Your task to perform on an android device: Empty the shopping cart on ebay.com. Search for "lg ultragear" on ebay.com, select the first entry, add it to the cart, then select checkout. Image 0: 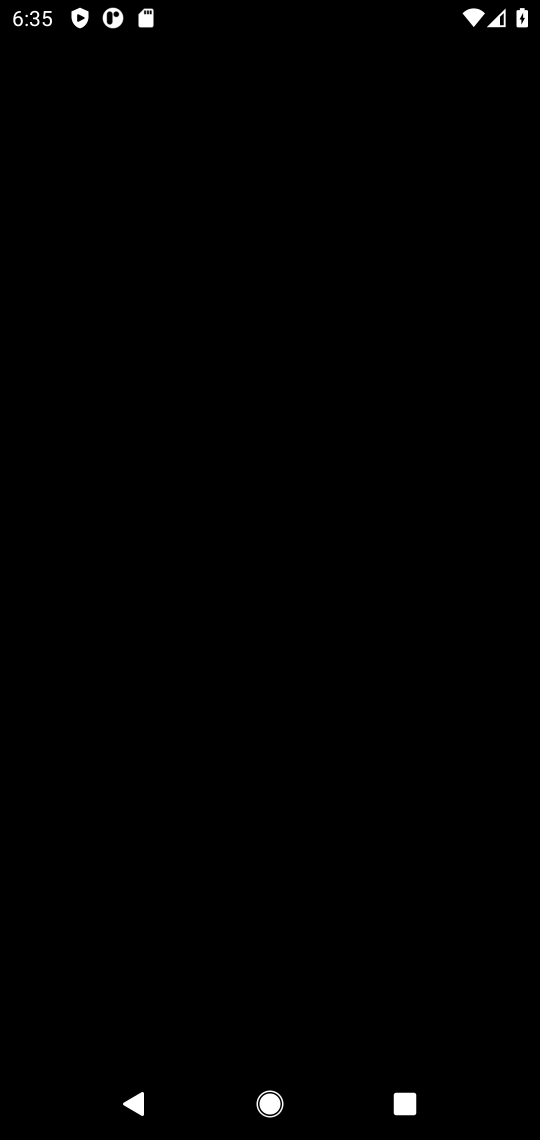
Step 0: press home button
Your task to perform on an android device: Empty the shopping cart on ebay.com. Search for "lg ultragear" on ebay.com, select the first entry, add it to the cart, then select checkout. Image 1: 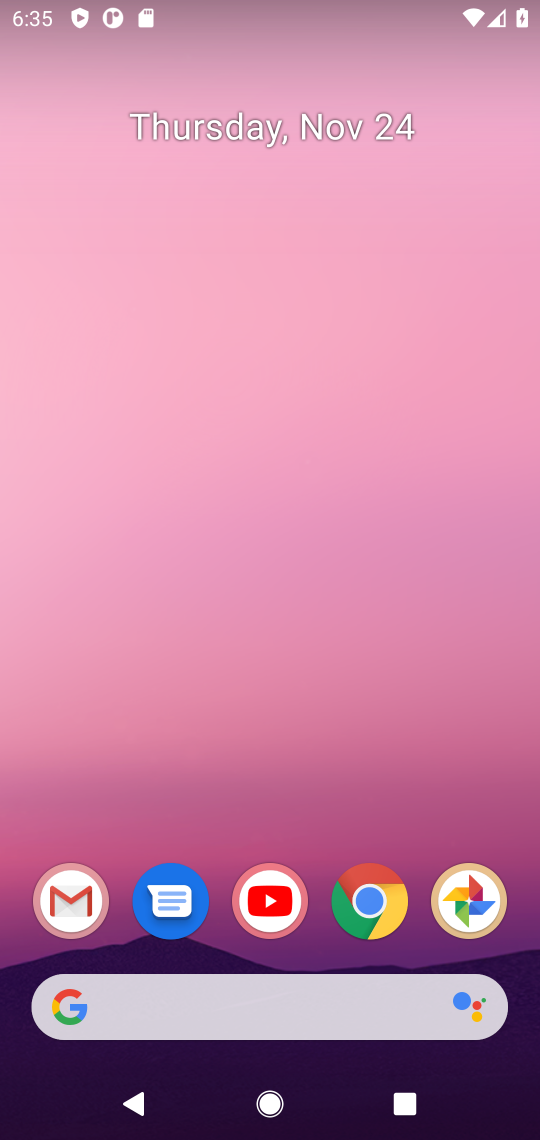
Step 1: click (364, 895)
Your task to perform on an android device: Empty the shopping cart on ebay.com. Search for "lg ultragear" on ebay.com, select the first entry, add it to the cart, then select checkout. Image 2: 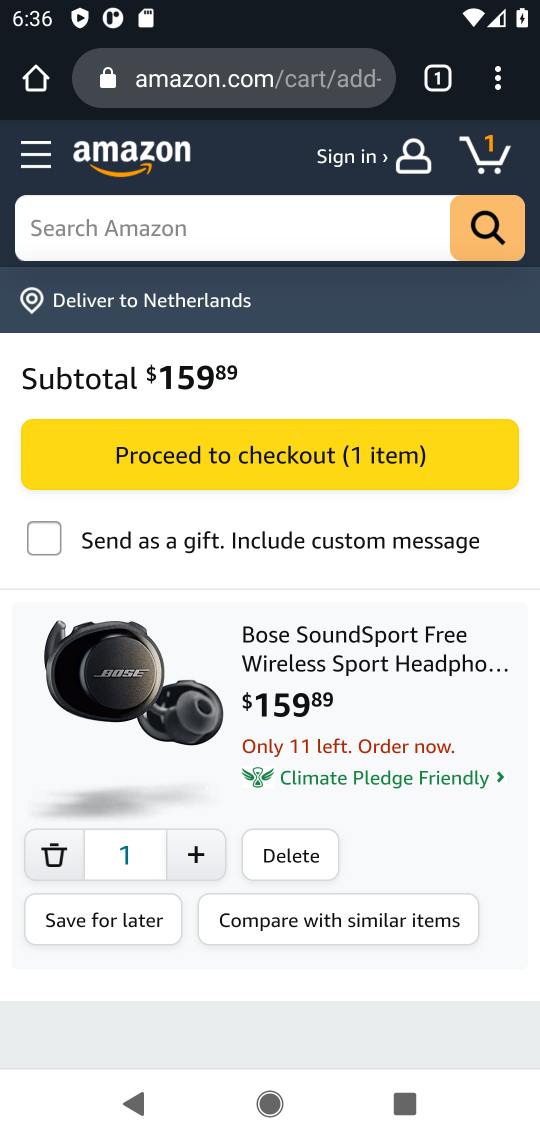
Step 2: click (282, 76)
Your task to perform on an android device: Empty the shopping cart on ebay.com. Search for "lg ultragear" on ebay.com, select the first entry, add it to the cart, then select checkout. Image 3: 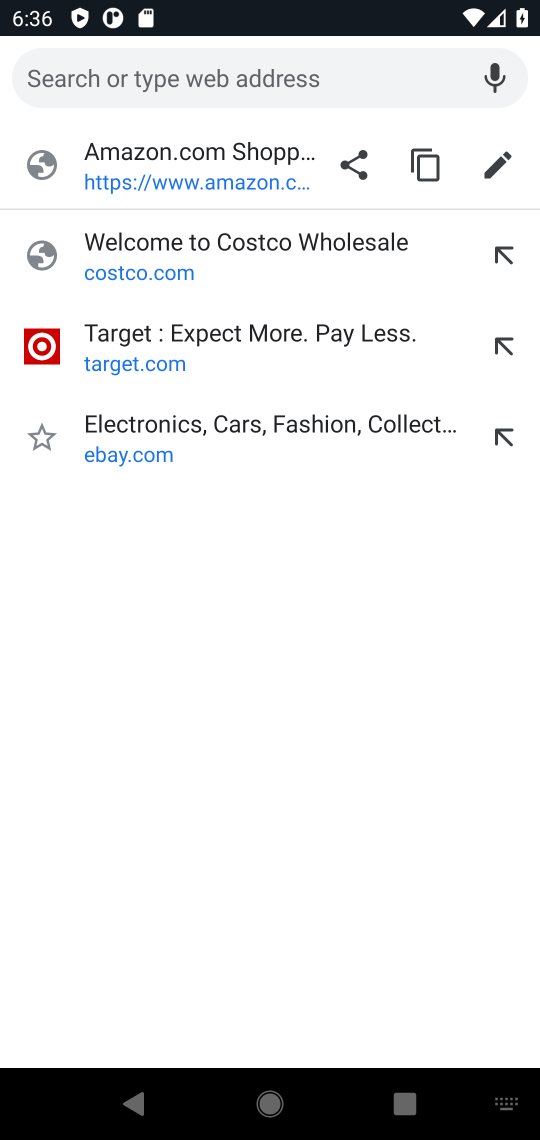
Step 3: type "ebay.com"
Your task to perform on an android device: Empty the shopping cart on ebay.com. Search for "lg ultragear" on ebay.com, select the first entry, add it to the cart, then select checkout. Image 4: 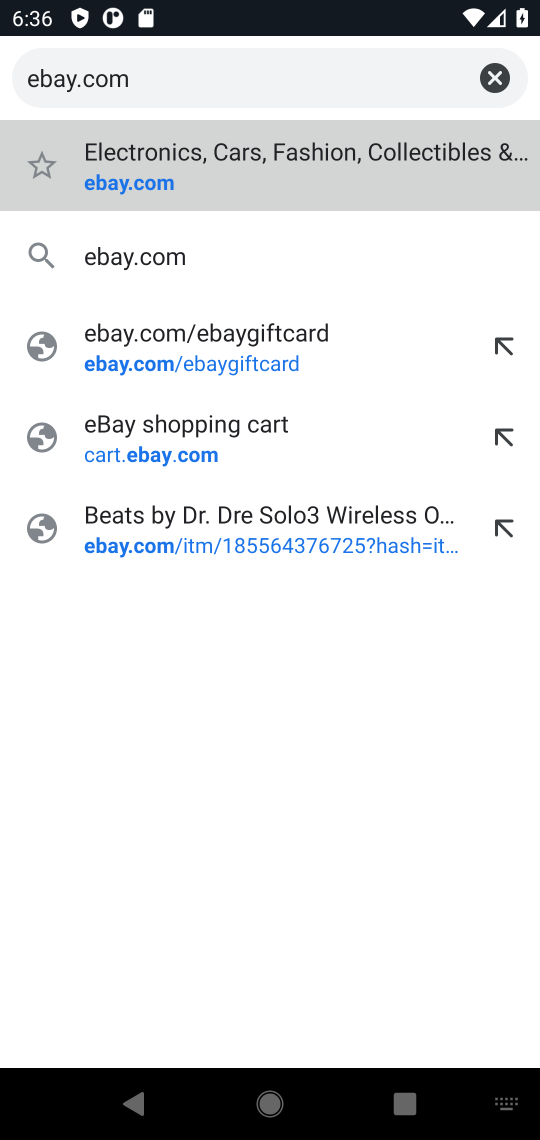
Step 4: click (329, 178)
Your task to perform on an android device: Empty the shopping cart on ebay.com. Search for "lg ultragear" on ebay.com, select the first entry, add it to the cart, then select checkout. Image 5: 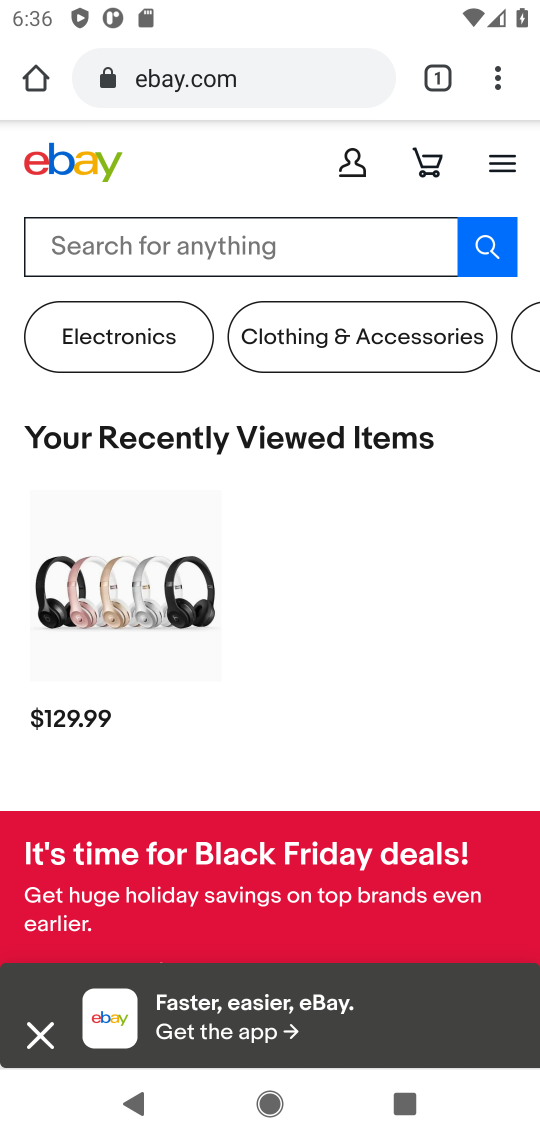
Step 5: drag from (296, 747) to (259, 507)
Your task to perform on an android device: Empty the shopping cart on ebay.com. Search for "lg ultragear" on ebay.com, select the first entry, add it to the cart, then select checkout. Image 6: 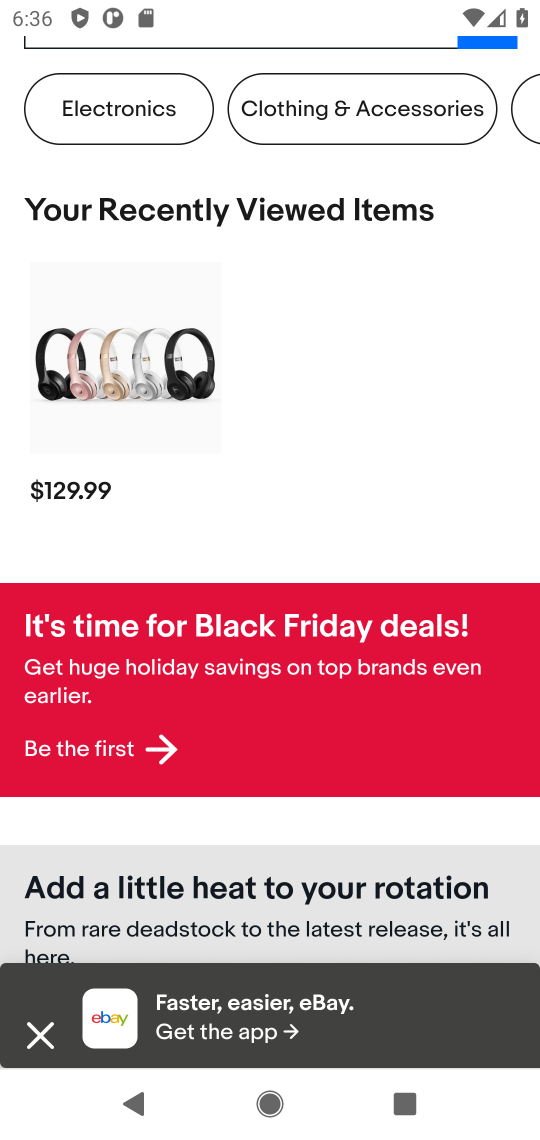
Step 6: drag from (270, 450) to (324, 964)
Your task to perform on an android device: Empty the shopping cart on ebay.com. Search for "lg ultragear" on ebay.com, select the first entry, add it to the cart, then select checkout. Image 7: 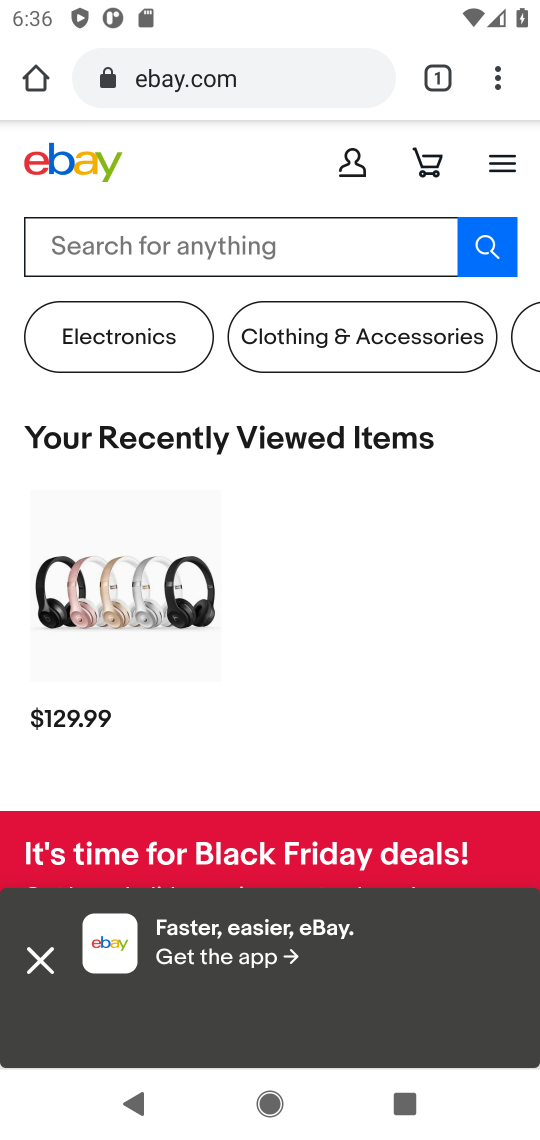
Step 7: click (432, 176)
Your task to perform on an android device: Empty the shopping cart on ebay.com. Search for "lg ultragear" on ebay.com, select the first entry, add it to the cart, then select checkout. Image 8: 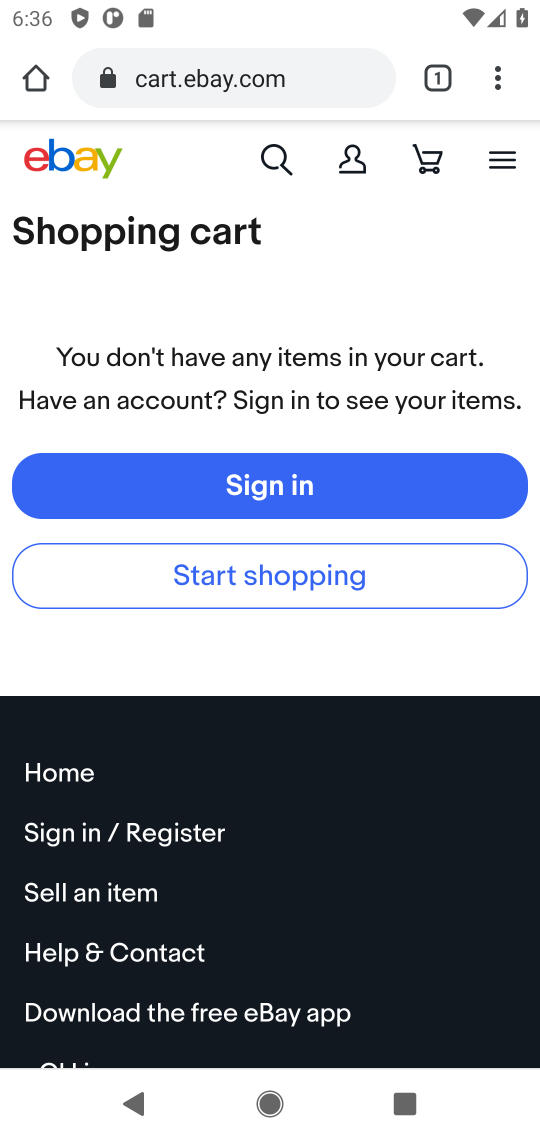
Step 8: click (270, 165)
Your task to perform on an android device: Empty the shopping cart on ebay.com. Search for "lg ultragear" on ebay.com, select the first entry, add it to the cart, then select checkout. Image 9: 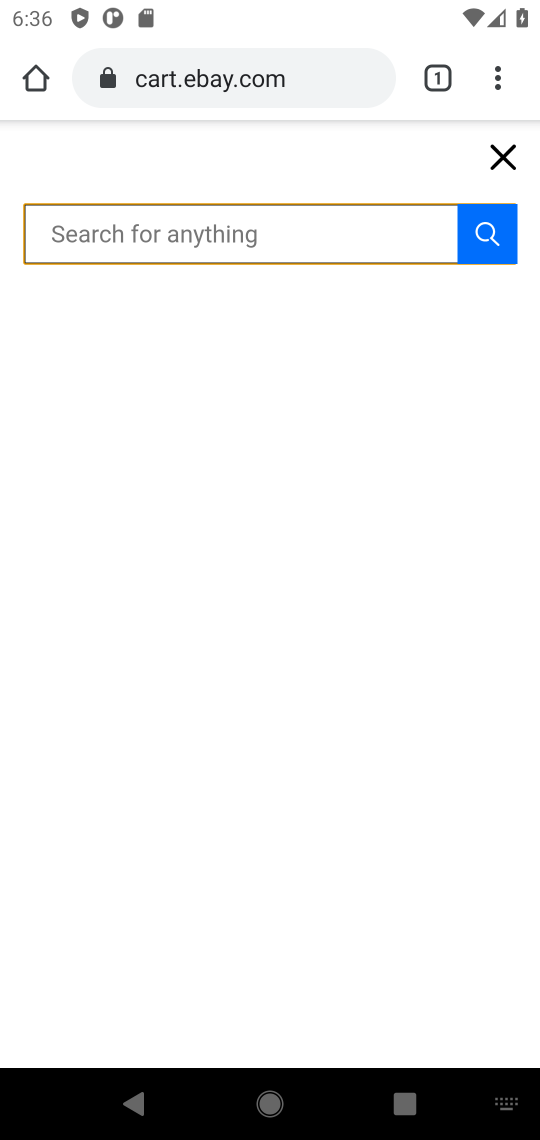
Step 9: type "lg ultrgear"
Your task to perform on an android device: Empty the shopping cart on ebay.com. Search for "lg ultragear" on ebay.com, select the first entry, add it to the cart, then select checkout. Image 10: 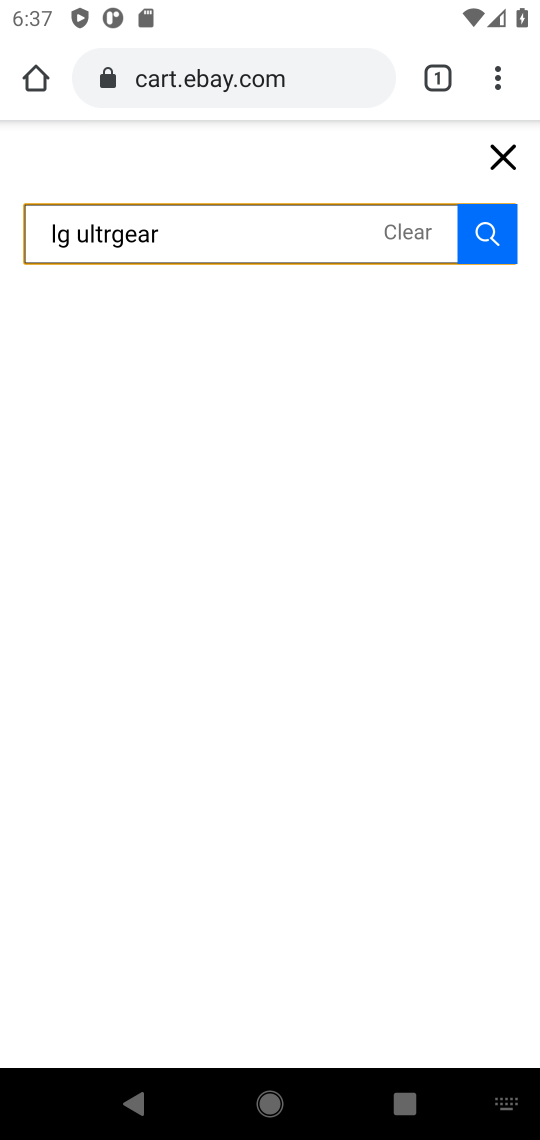
Step 10: press enter
Your task to perform on an android device: Empty the shopping cart on ebay.com. Search for "lg ultragear" on ebay.com, select the first entry, add it to the cart, then select checkout. Image 11: 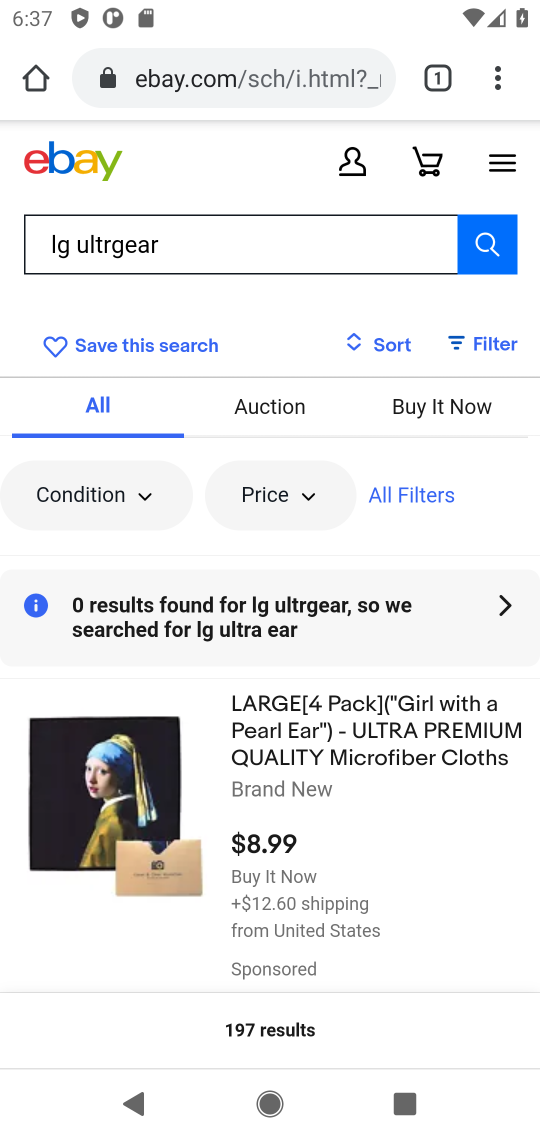
Step 11: drag from (331, 882) to (320, 576)
Your task to perform on an android device: Empty the shopping cart on ebay.com. Search for "lg ultragear" on ebay.com, select the first entry, add it to the cart, then select checkout. Image 12: 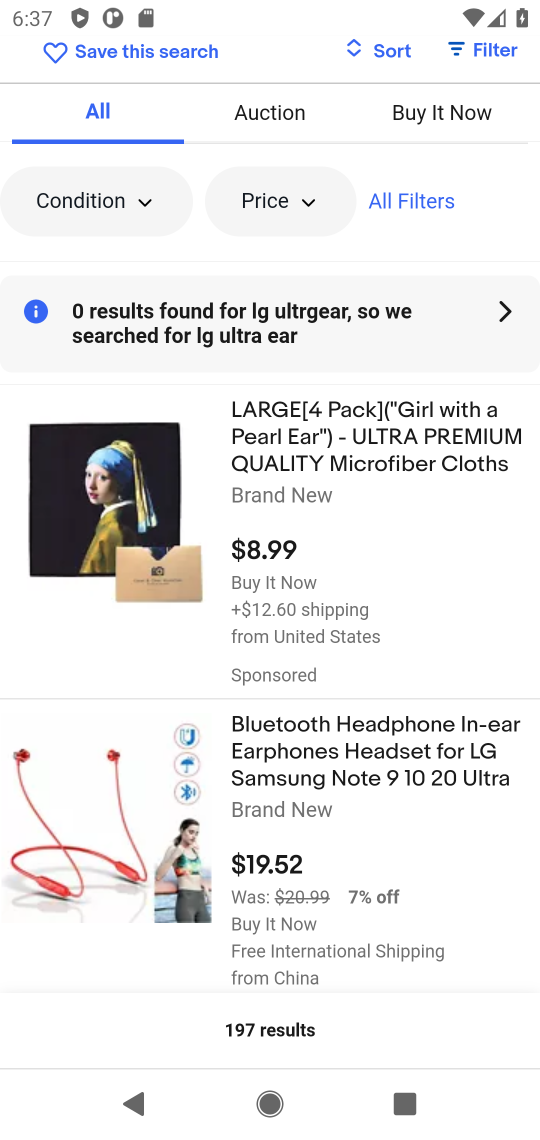
Step 12: click (347, 435)
Your task to perform on an android device: Empty the shopping cart on ebay.com. Search for "lg ultragear" on ebay.com, select the first entry, add it to the cart, then select checkout. Image 13: 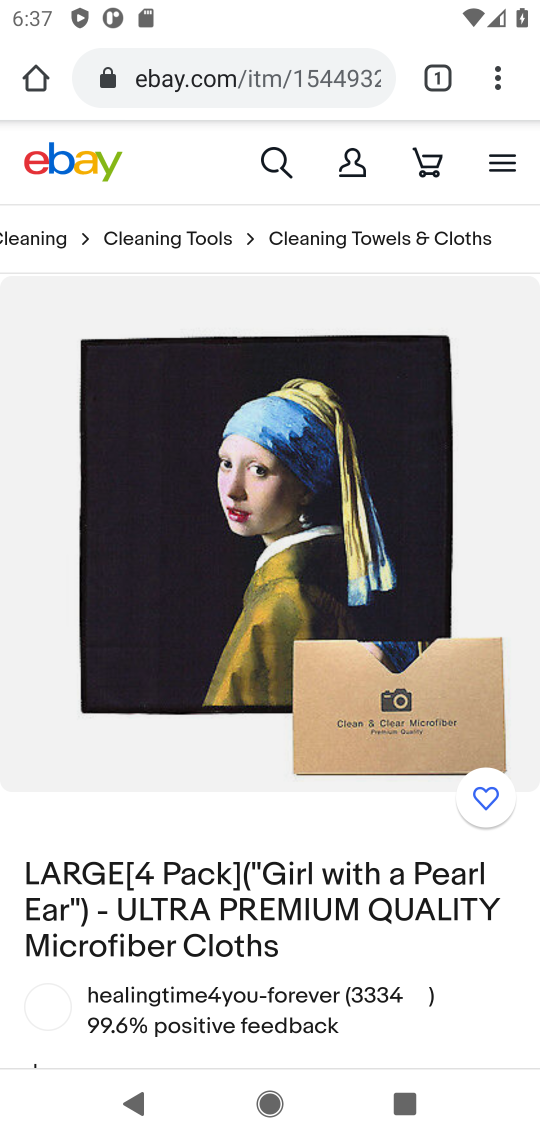
Step 13: drag from (318, 925) to (290, 442)
Your task to perform on an android device: Empty the shopping cart on ebay.com. Search for "lg ultragear" on ebay.com, select the first entry, add it to the cart, then select checkout. Image 14: 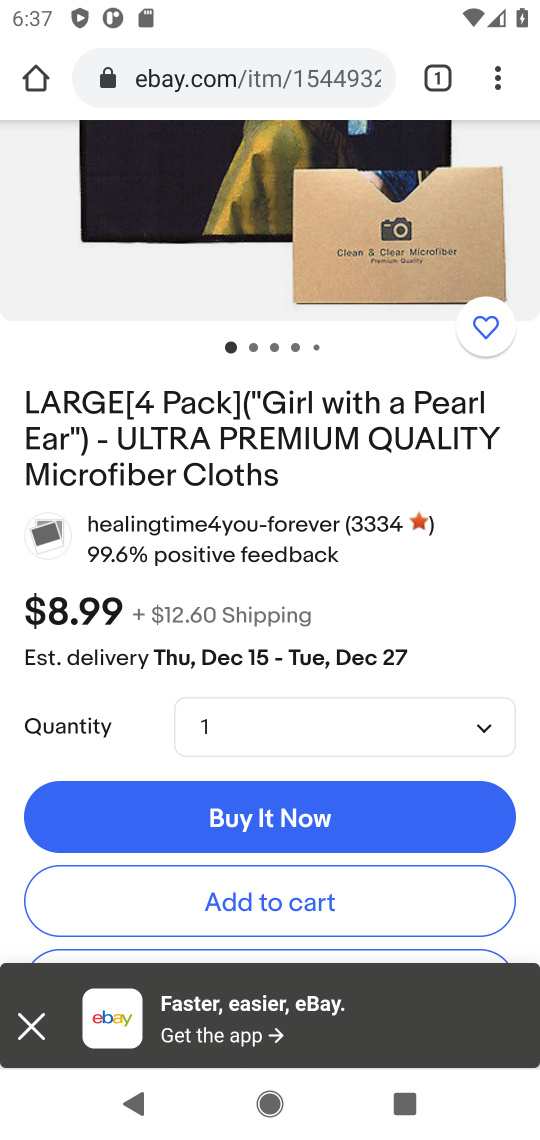
Step 14: click (304, 922)
Your task to perform on an android device: Empty the shopping cart on ebay.com. Search for "lg ultragear" on ebay.com, select the first entry, add it to the cart, then select checkout. Image 15: 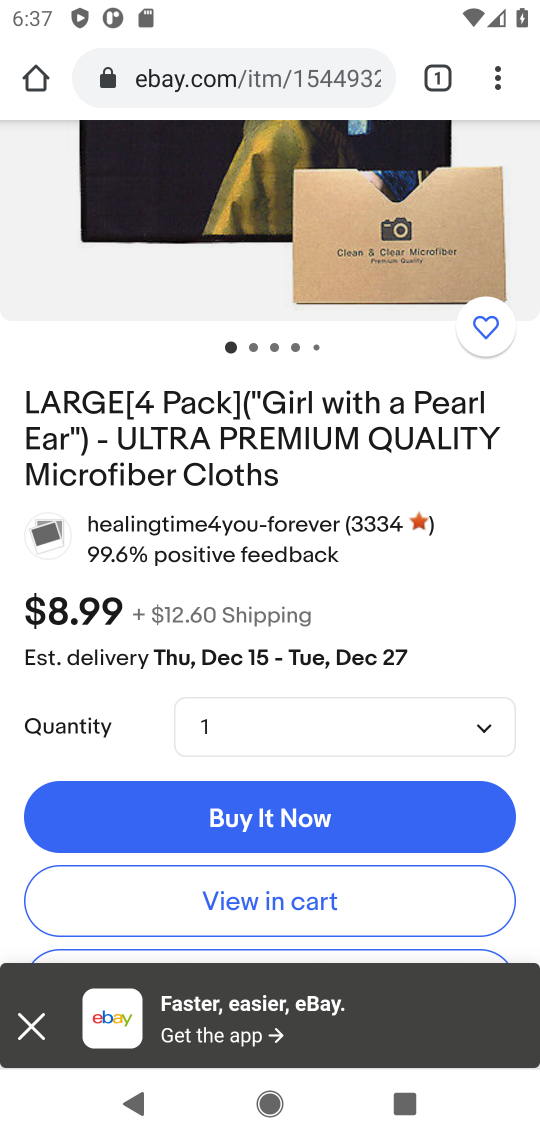
Step 15: drag from (478, 538) to (449, 1093)
Your task to perform on an android device: Empty the shopping cart on ebay.com. Search for "lg ultragear" on ebay.com, select the first entry, add it to the cart, then select checkout. Image 16: 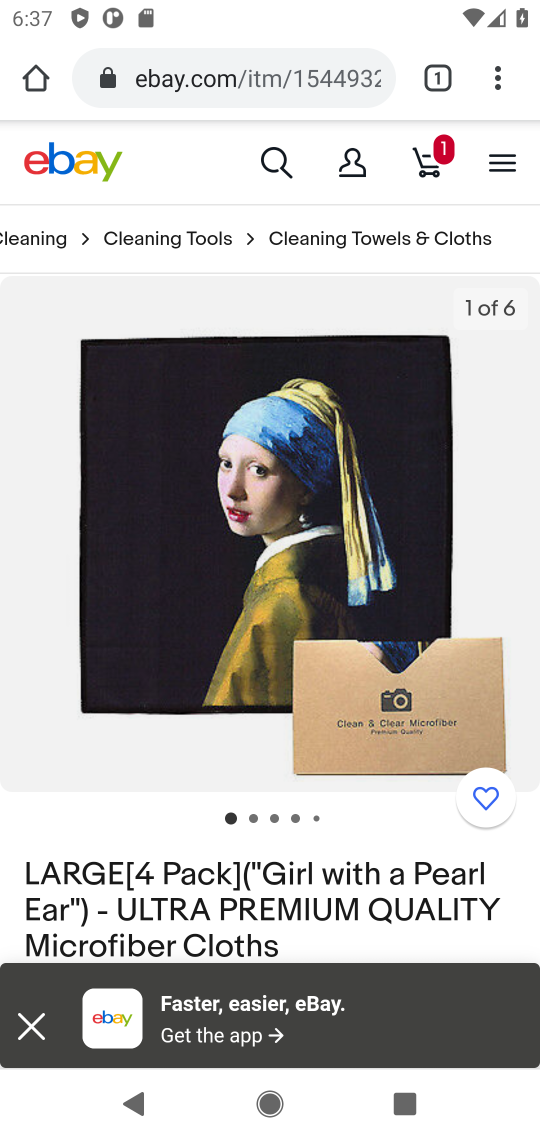
Step 16: click (430, 154)
Your task to perform on an android device: Empty the shopping cart on ebay.com. Search for "lg ultragear" on ebay.com, select the first entry, add it to the cart, then select checkout. Image 17: 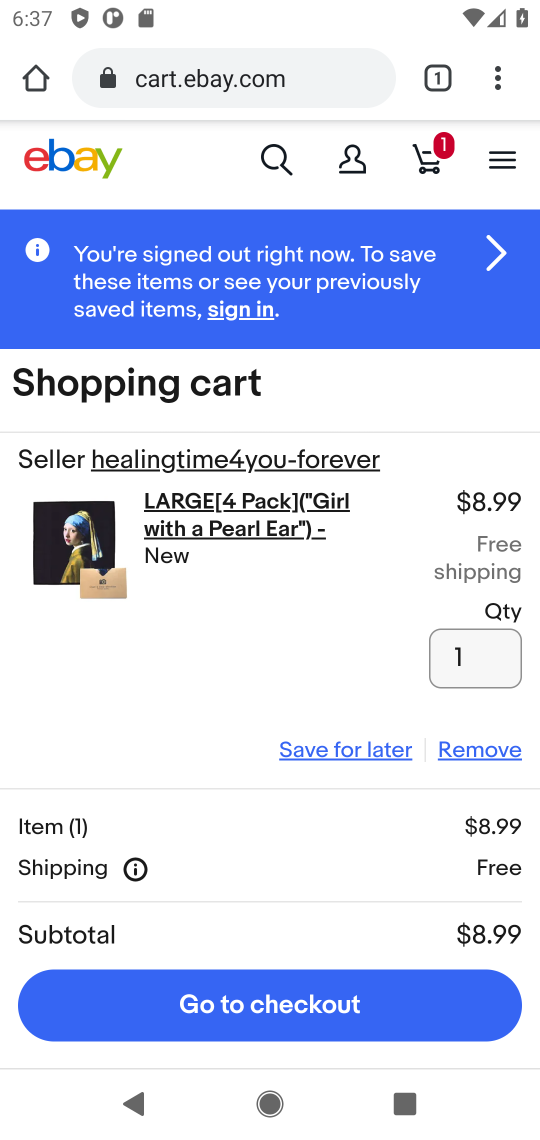
Step 17: click (345, 1005)
Your task to perform on an android device: Empty the shopping cart on ebay.com. Search for "lg ultragear" on ebay.com, select the first entry, add it to the cart, then select checkout. Image 18: 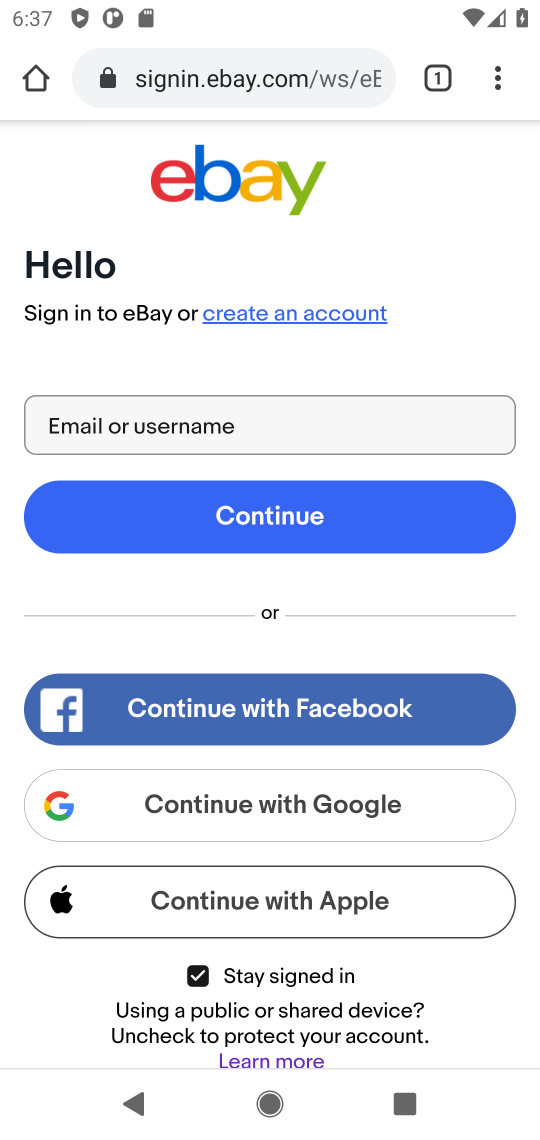
Step 18: task complete